Your task to perform on an android device: check battery use Image 0: 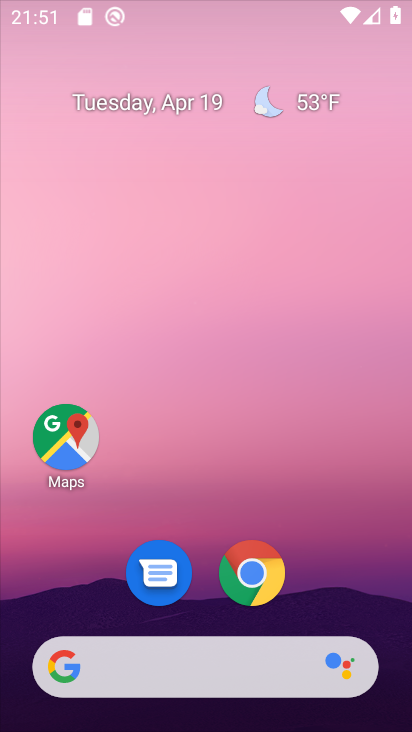
Step 0: drag from (211, 606) to (226, 172)
Your task to perform on an android device: check battery use Image 1: 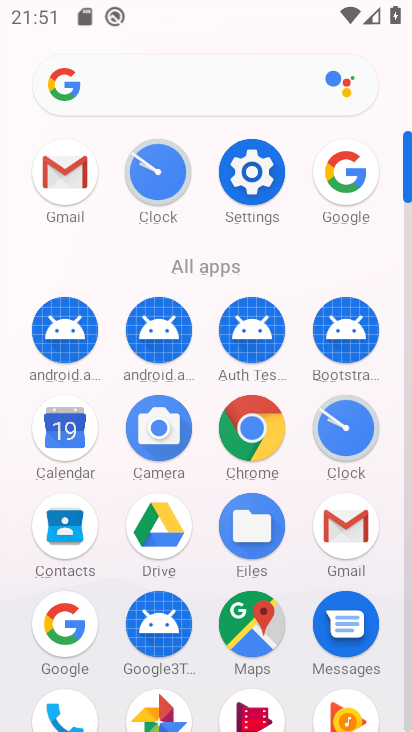
Step 1: click (246, 168)
Your task to perform on an android device: check battery use Image 2: 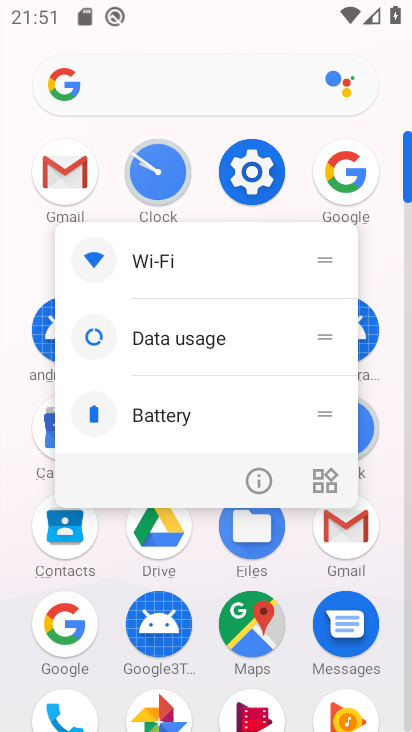
Step 2: click (251, 165)
Your task to perform on an android device: check battery use Image 3: 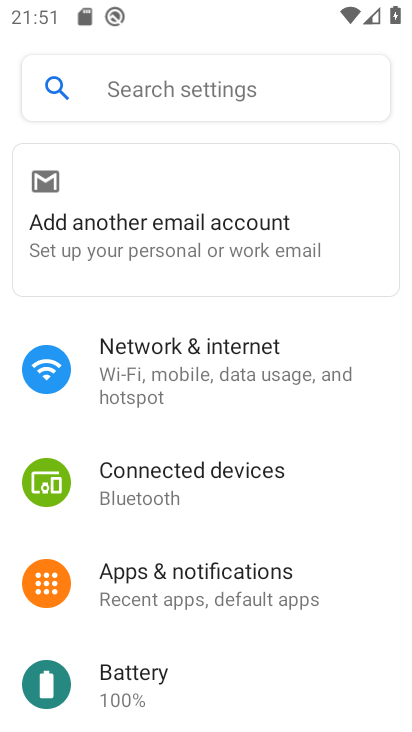
Step 3: click (161, 678)
Your task to perform on an android device: check battery use Image 4: 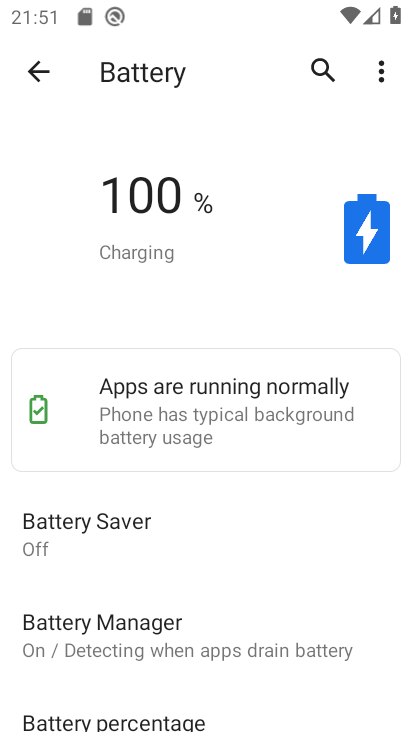
Step 4: click (382, 70)
Your task to perform on an android device: check battery use Image 5: 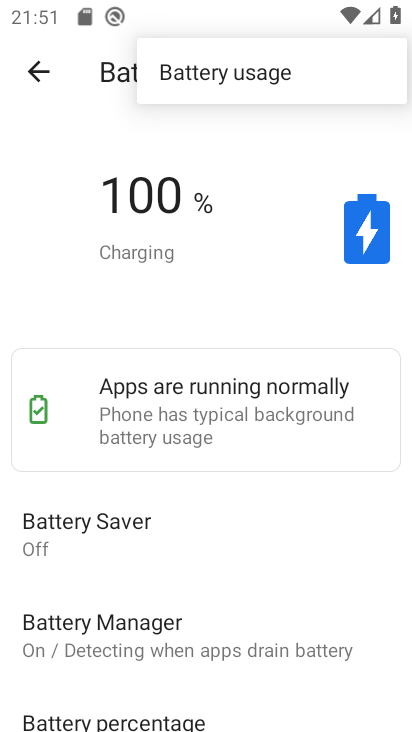
Step 5: click (220, 86)
Your task to perform on an android device: check battery use Image 6: 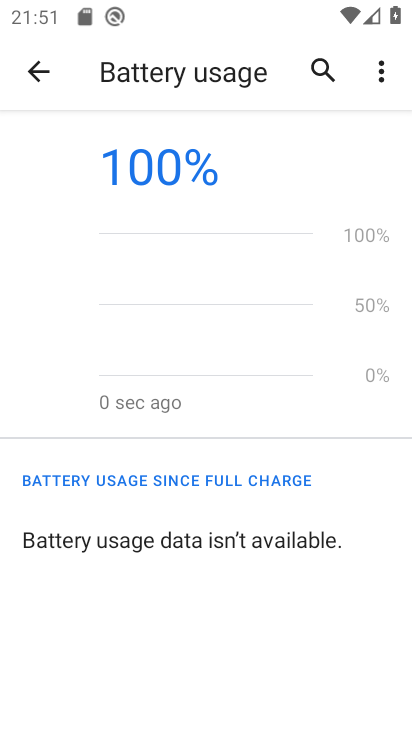
Step 6: task complete